Your task to perform on an android device: open app "Google Keep" (install if not already installed) Image 0: 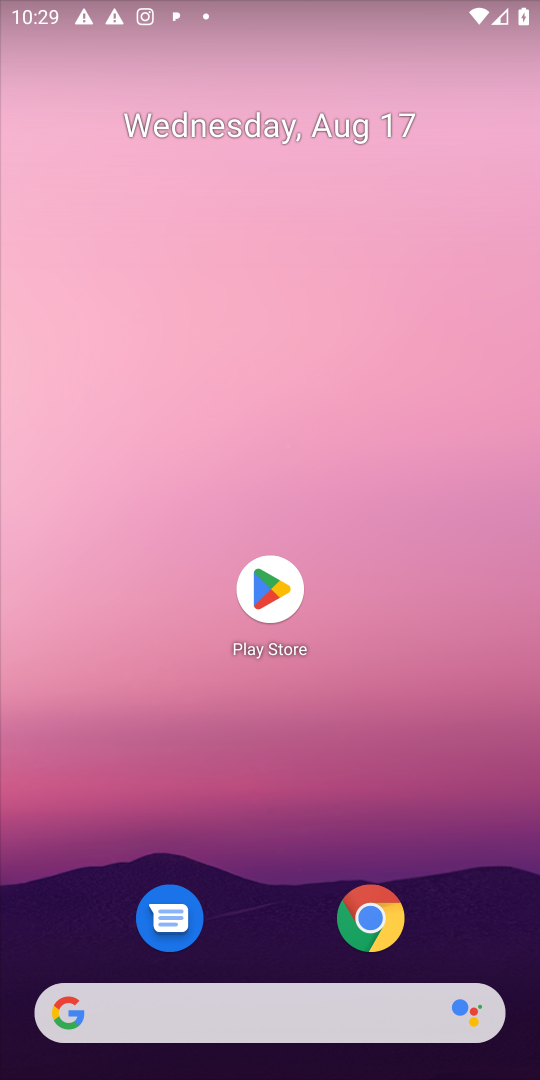
Step 0: click (272, 593)
Your task to perform on an android device: open app "Google Keep" (install if not already installed) Image 1: 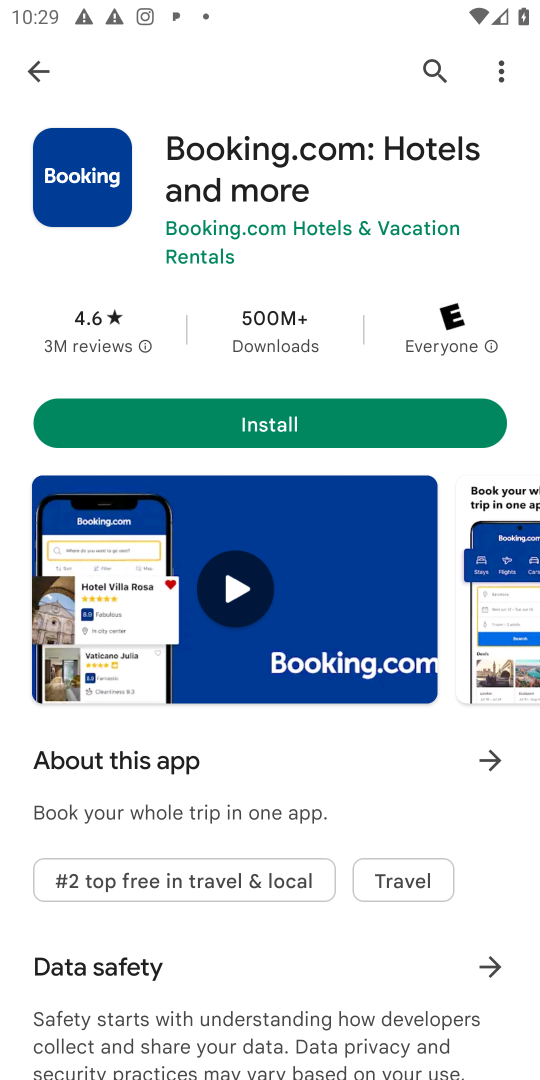
Step 1: click (434, 64)
Your task to perform on an android device: open app "Google Keep" (install if not already installed) Image 2: 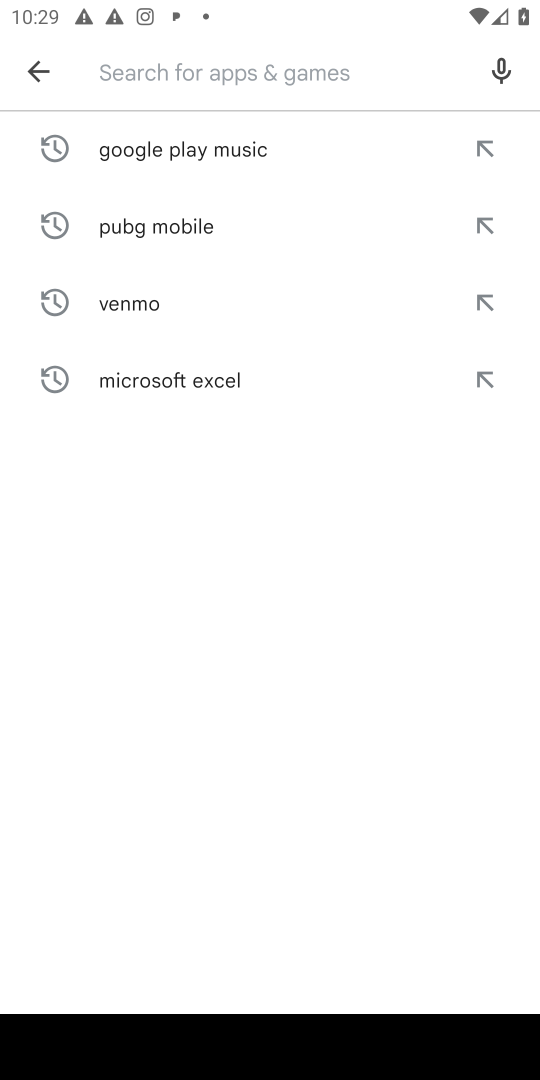
Step 2: type "Google Keep"
Your task to perform on an android device: open app "Google Keep" (install if not already installed) Image 3: 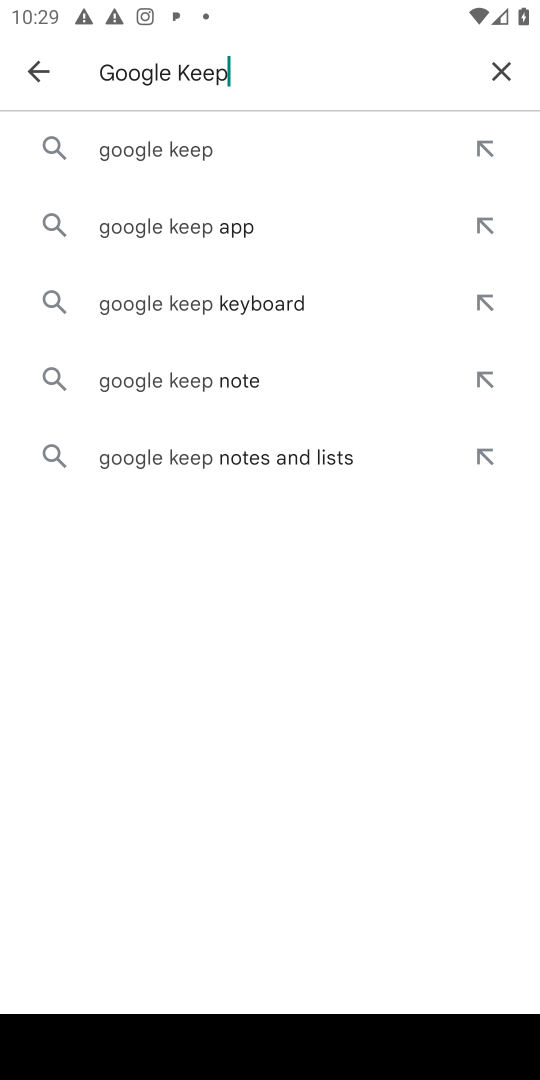
Step 3: click (181, 158)
Your task to perform on an android device: open app "Google Keep" (install if not already installed) Image 4: 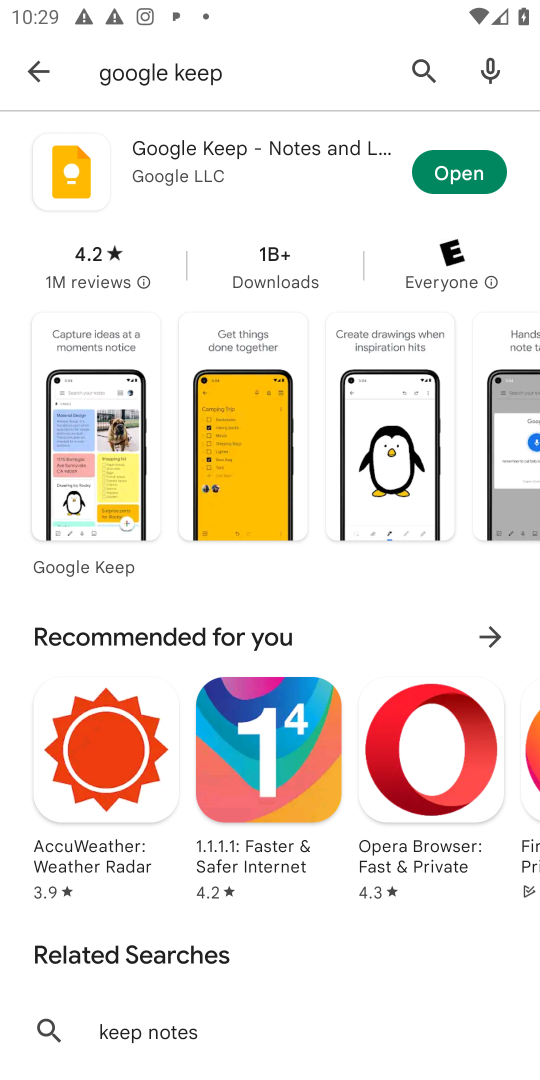
Step 4: click (440, 181)
Your task to perform on an android device: open app "Google Keep" (install if not already installed) Image 5: 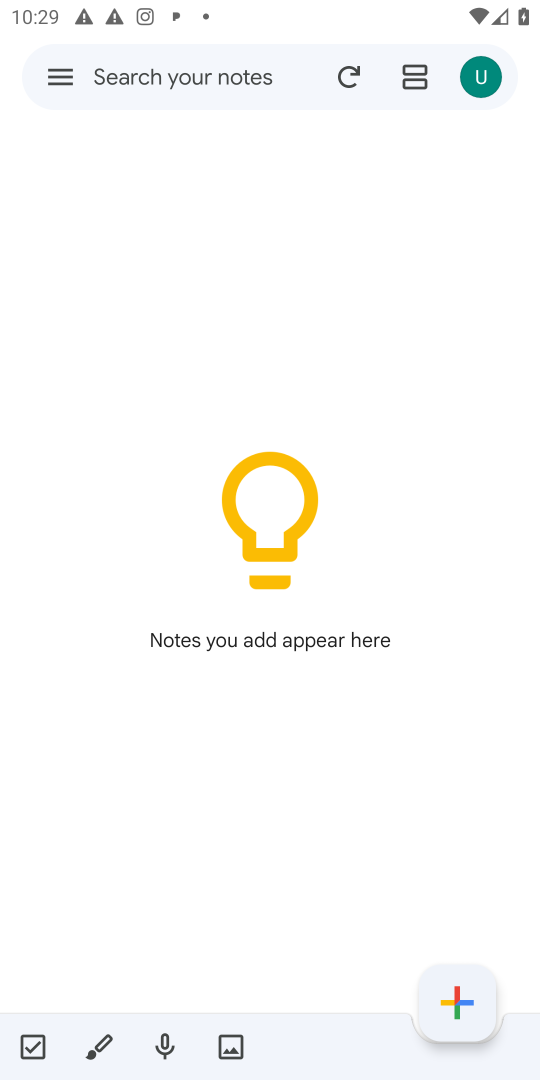
Step 5: task complete